Your task to perform on an android device: Open Youtube and go to the subscriptions tab Image 0: 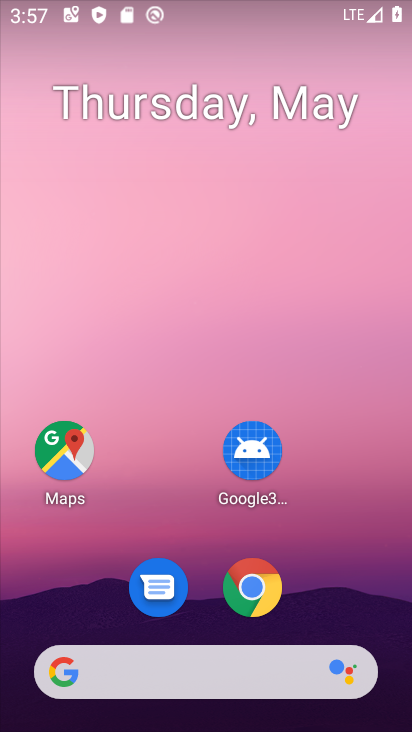
Step 0: drag from (226, 541) to (43, 53)
Your task to perform on an android device: Open Youtube and go to the subscriptions tab Image 1: 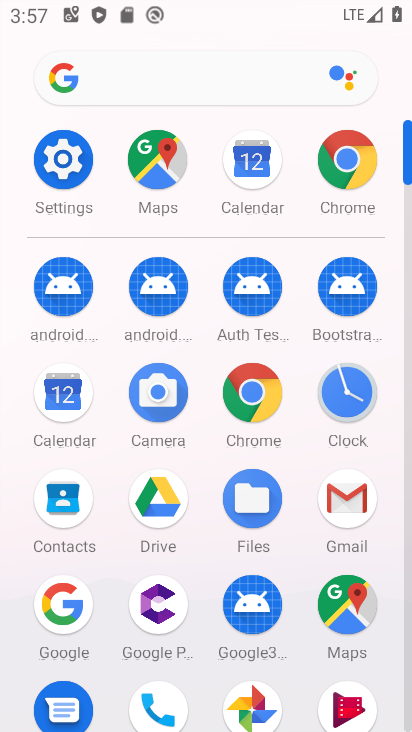
Step 1: drag from (233, 514) to (125, 194)
Your task to perform on an android device: Open Youtube and go to the subscriptions tab Image 2: 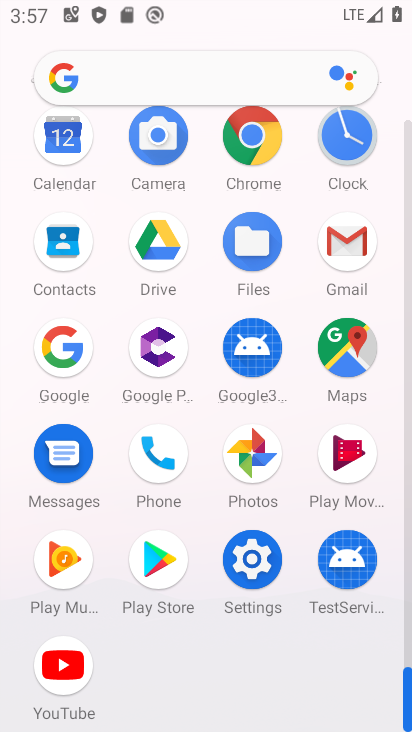
Step 2: click (91, 690)
Your task to perform on an android device: Open Youtube and go to the subscriptions tab Image 3: 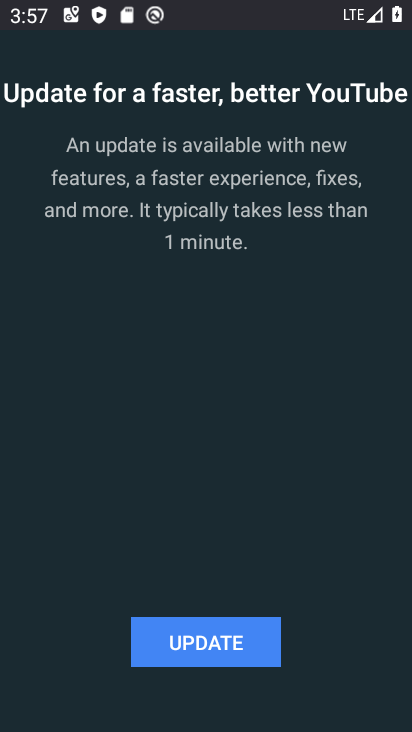
Step 3: task complete